Your task to perform on an android device: turn smart compose on in the gmail app Image 0: 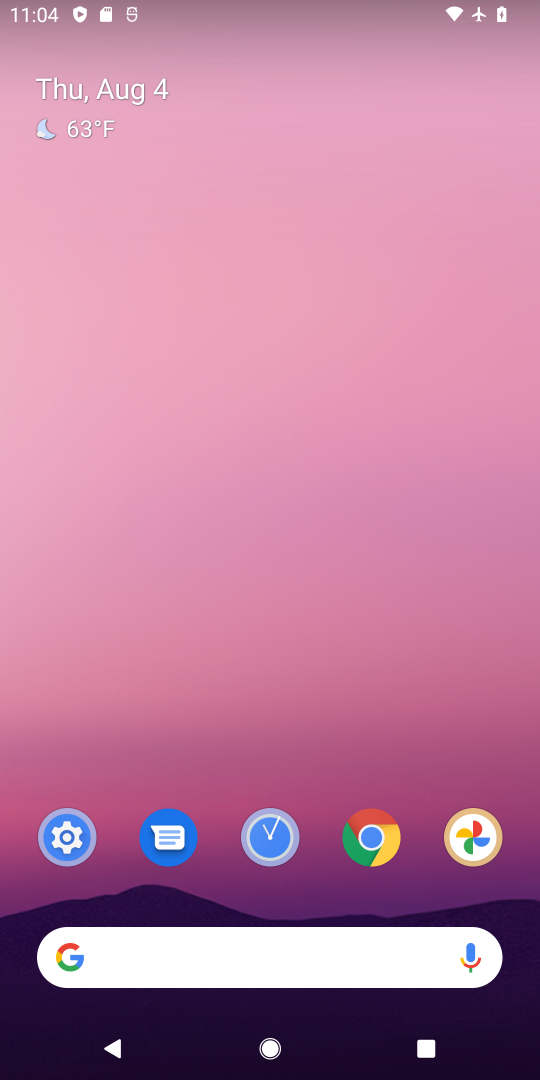
Step 0: press home button
Your task to perform on an android device: turn smart compose on in the gmail app Image 1: 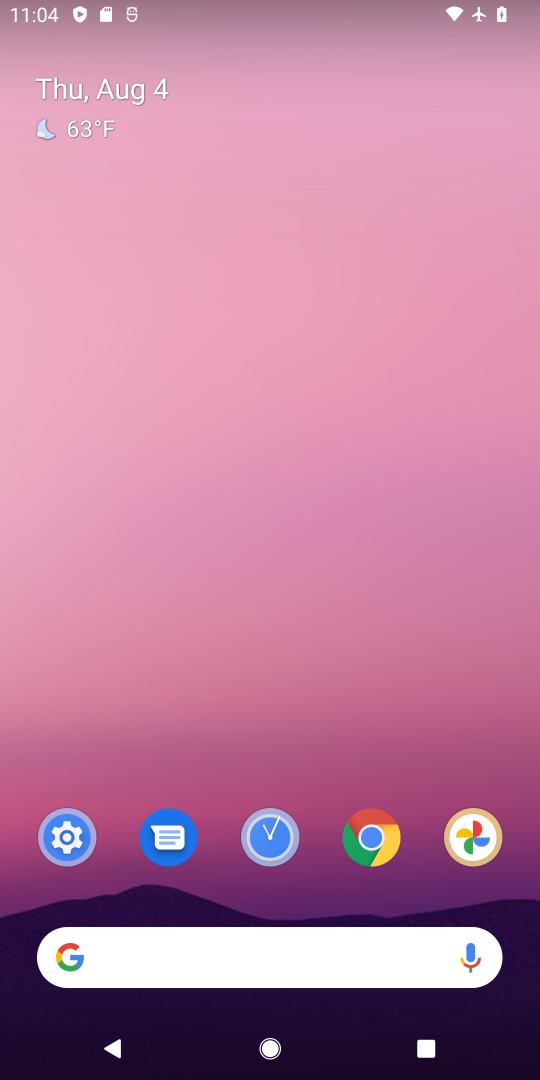
Step 1: drag from (326, 849) to (420, 107)
Your task to perform on an android device: turn smart compose on in the gmail app Image 2: 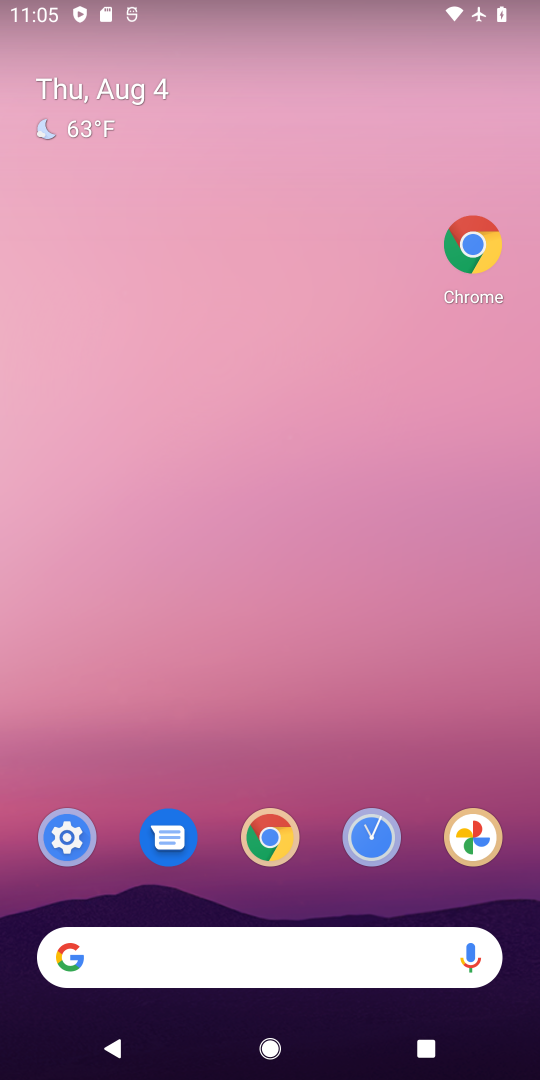
Step 2: drag from (324, 901) to (358, 63)
Your task to perform on an android device: turn smart compose on in the gmail app Image 3: 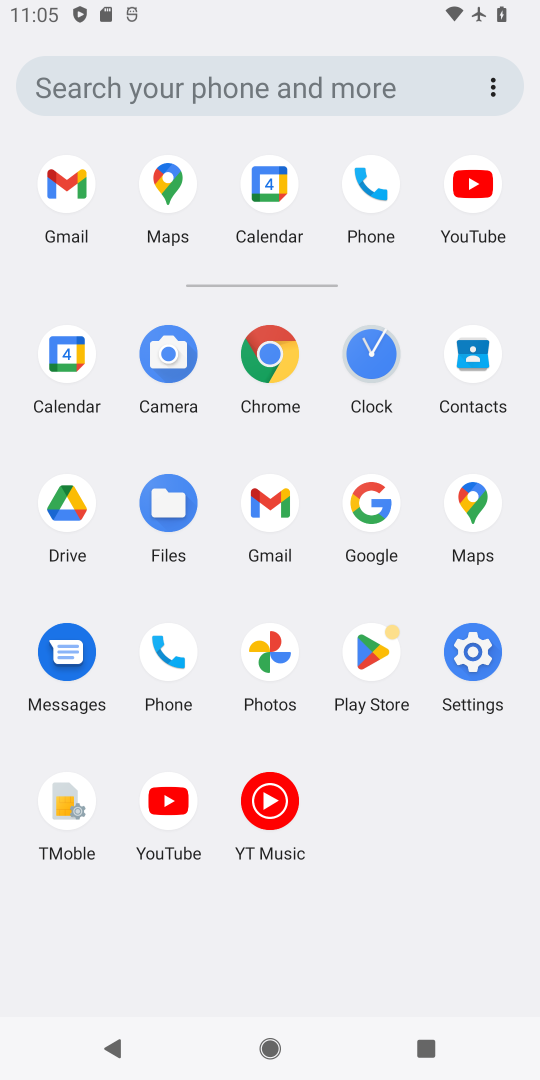
Step 3: click (272, 497)
Your task to perform on an android device: turn smart compose on in the gmail app Image 4: 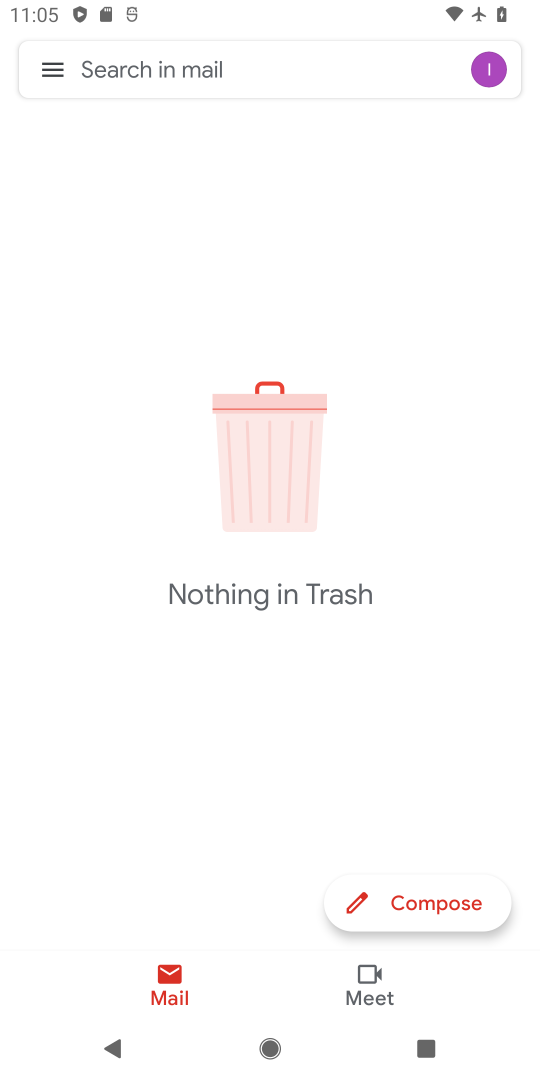
Step 4: click (49, 64)
Your task to perform on an android device: turn smart compose on in the gmail app Image 5: 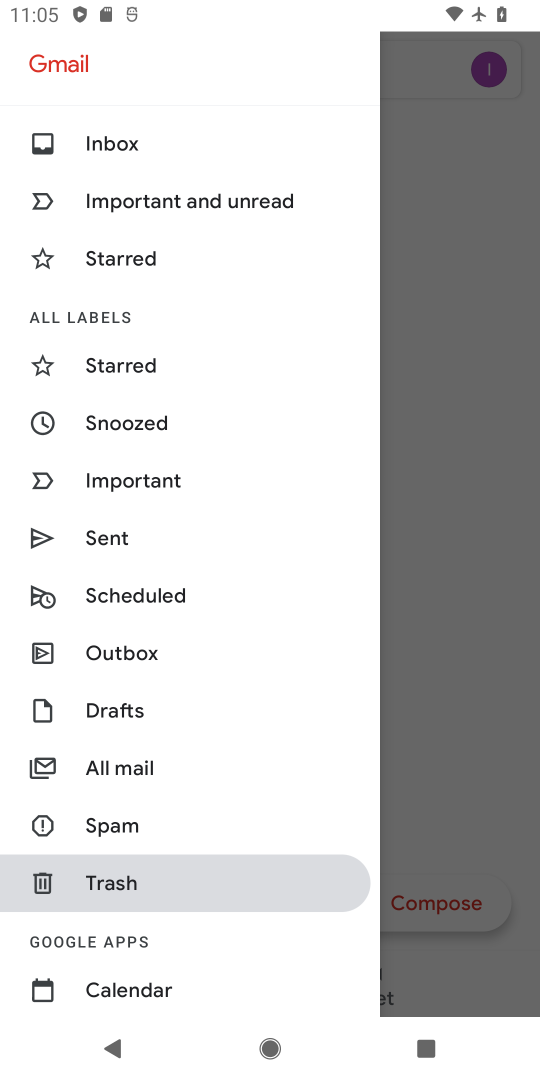
Step 5: drag from (199, 934) to (245, 185)
Your task to perform on an android device: turn smart compose on in the gmail app Image 6: 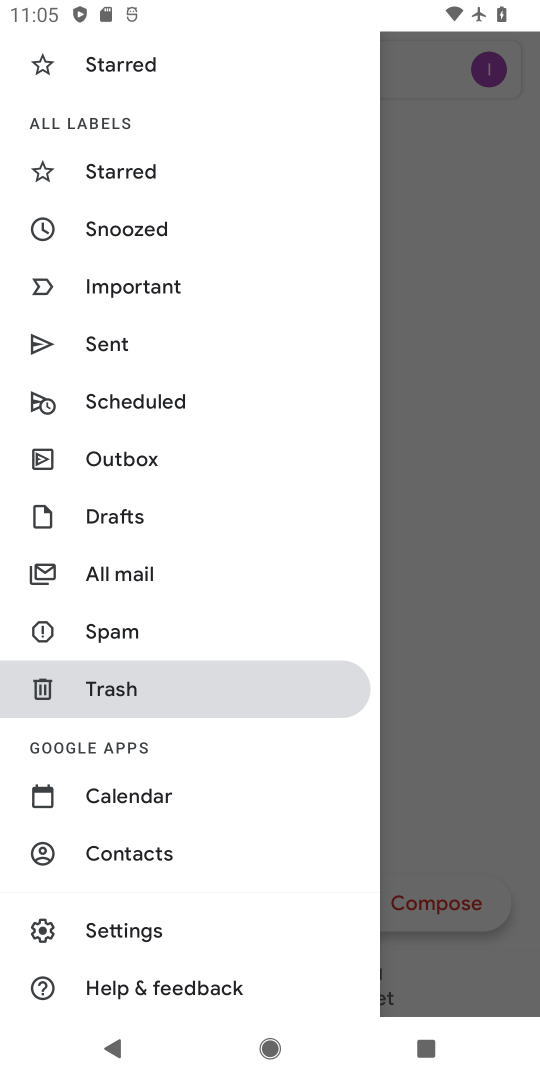
Step 6: click (166, 929)
Your task to perform on an android device: turn smart compose on in the gmail app Image 7: 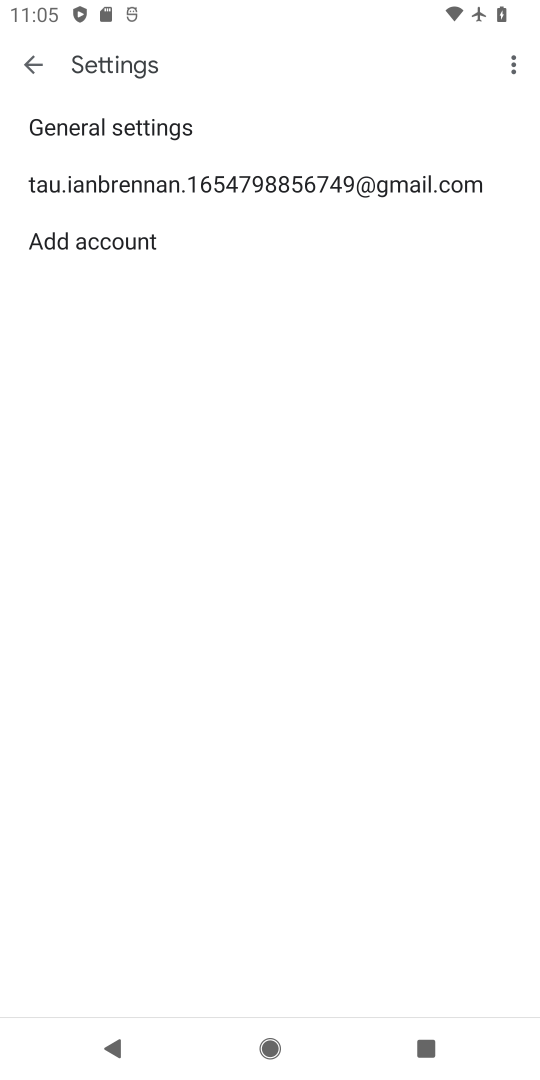
Step 7: click (218, 179)
Your task to perform on an android device: turn smart compose on in the gmail app Image 8: 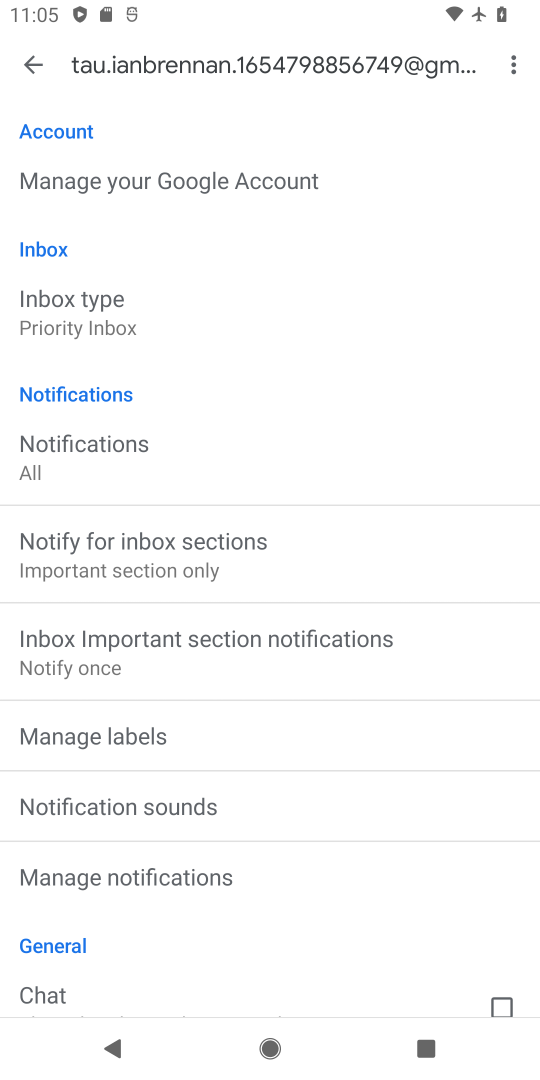
Step 8: task complete